Your task to perform on an android device: empty trash in google photos Image 0: 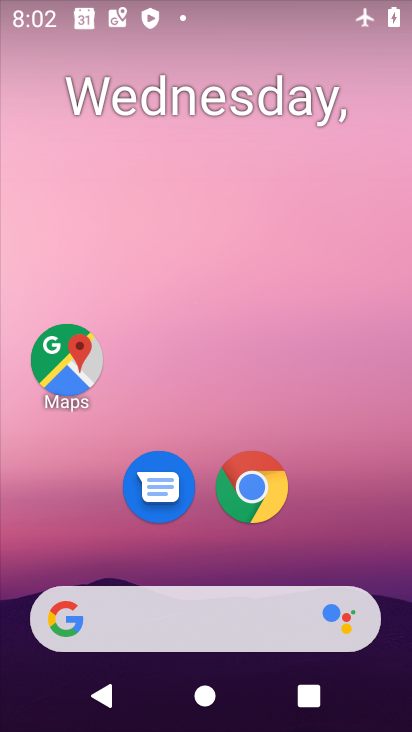
Step 0: drag from (345, 575) to (366, 0)
Your task to perform on an android device: empty trash in google photos Image 1: 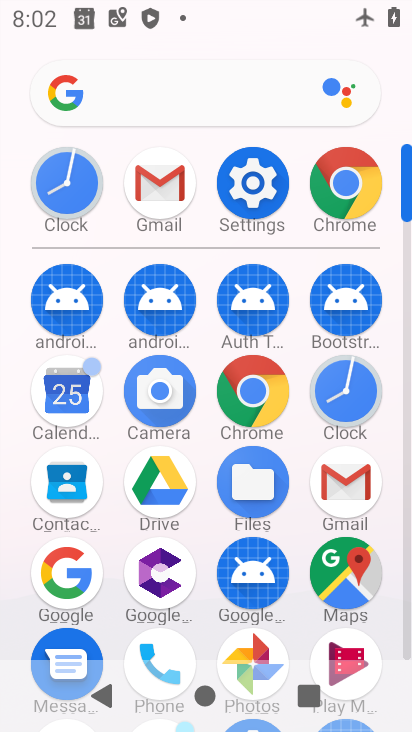
Step 1: click (405, 549)
Your task to perform on an android device: empty trash in google photos Image 2: 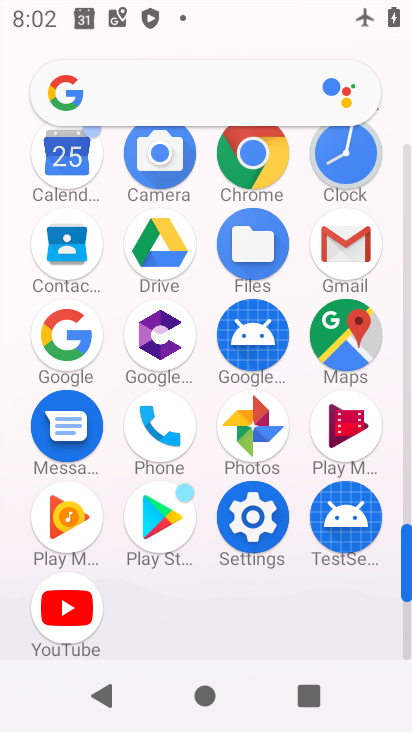
Step 2: click (251, 429)
Your task to perform on an android device: empty trash in google photos Image 3: 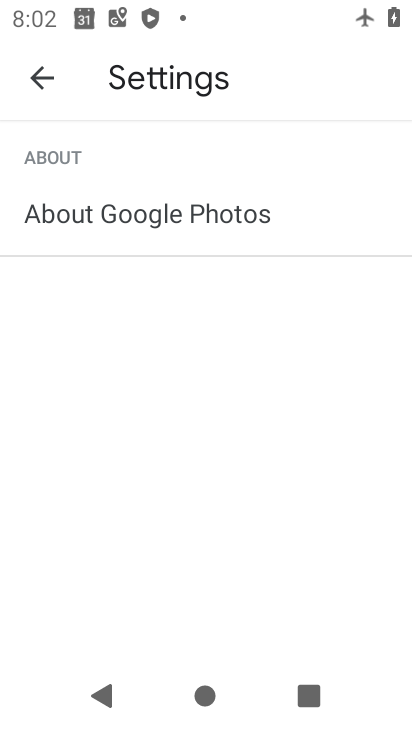
Step 3: click (46, 73)
Your task to perform on an android device: empty trash in google photos Image 4: 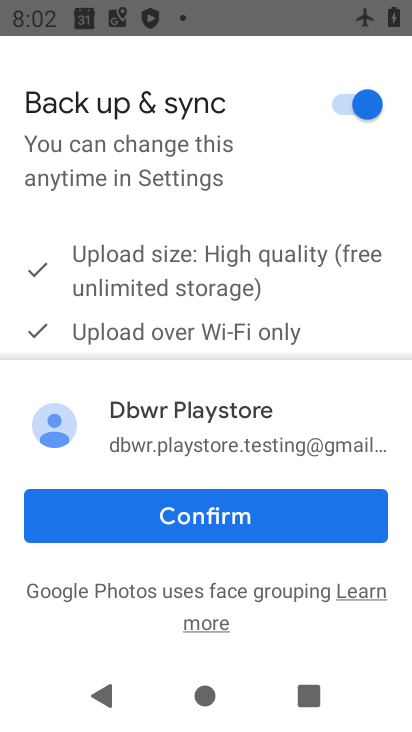
Step 4: click (193, 518)
Your task to perform on an android device: empty trash in google photos Image 5: 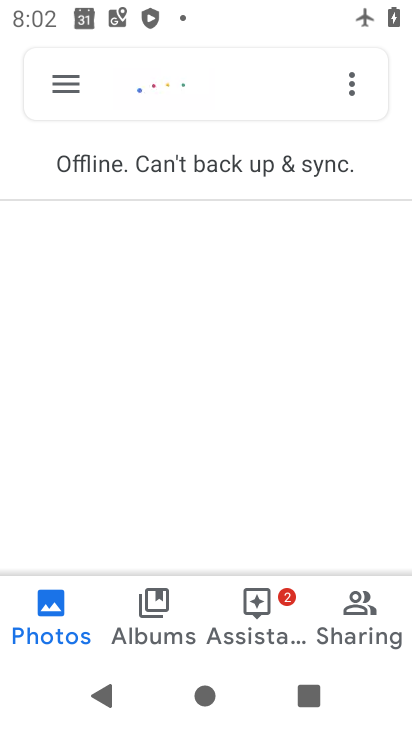
Step 5: click (76, 93)
Your task to perform on an android device: empty trash in google photos Image 6: 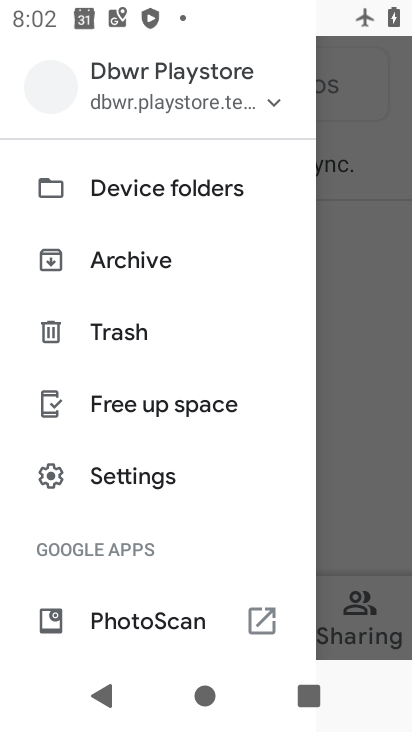
Step 6: click (111, 333)
Your task to perform on an android device: empty trash in google photos Image 7: 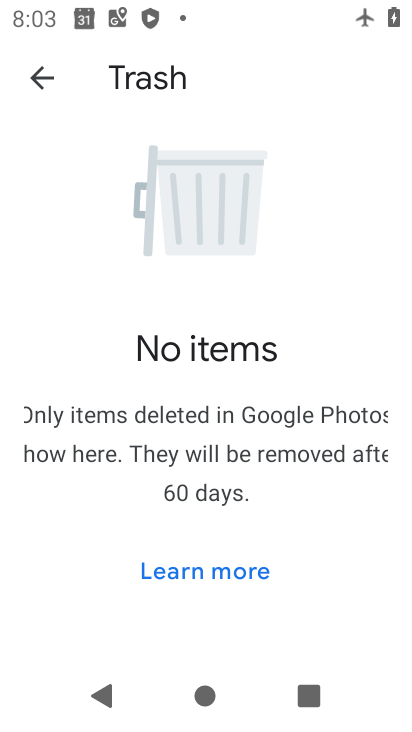
Step 7: task complete